Your task to perform on an android device: Go to accessibility settings Image 0: 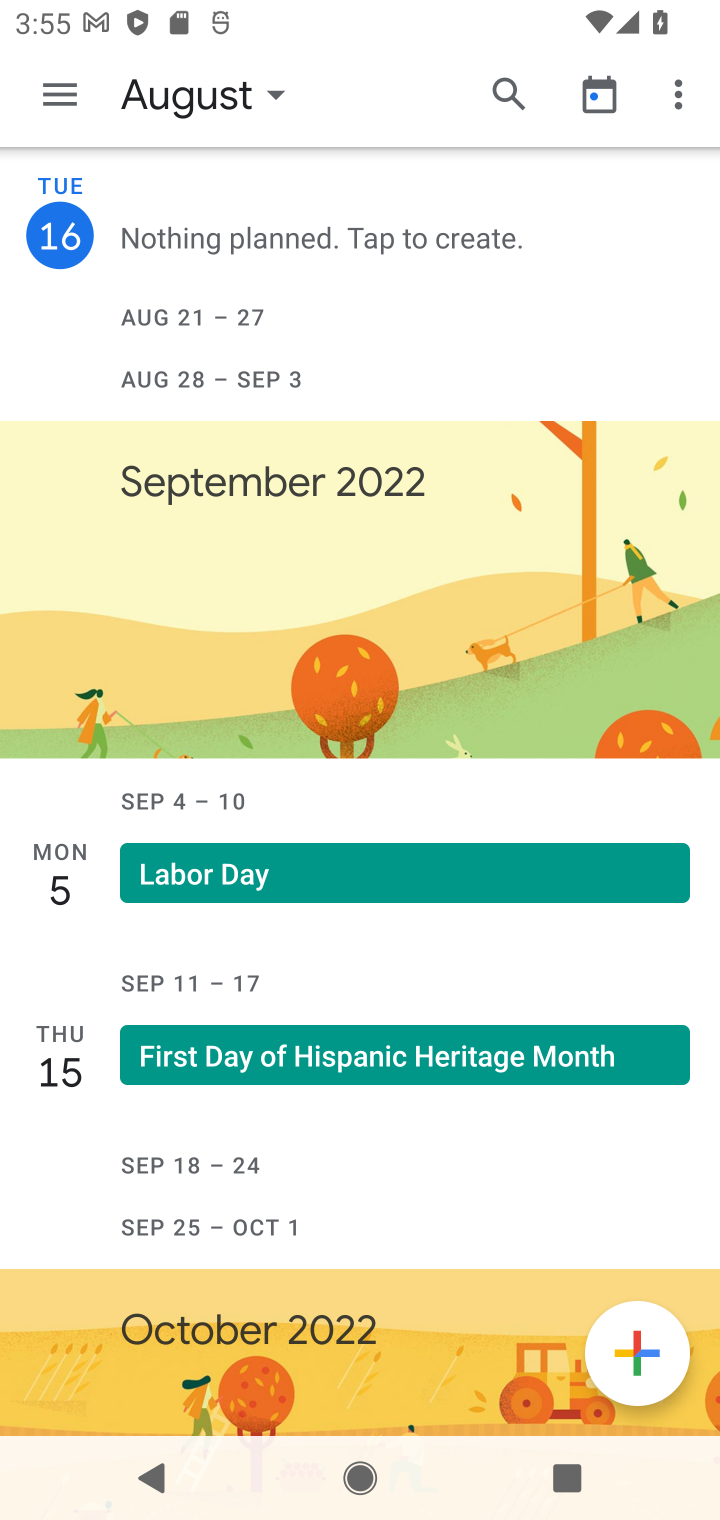
Step 0: press home button
Your task to perform on an android device: Go to accessibility settings Image 1: 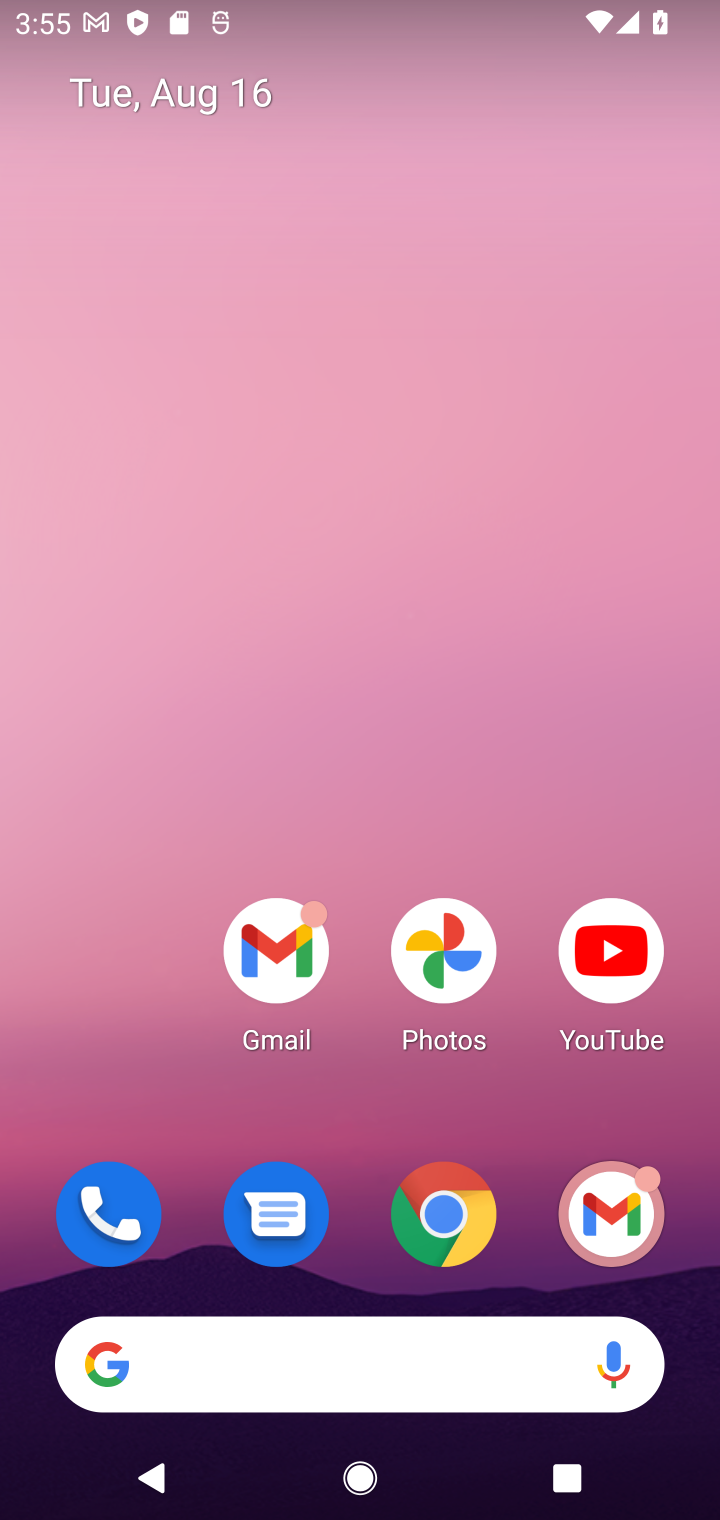
Step 1: drag from (230, 1262) to (95, 627)
Your task to perform on an android device: Go to accessibility settings Image 2: 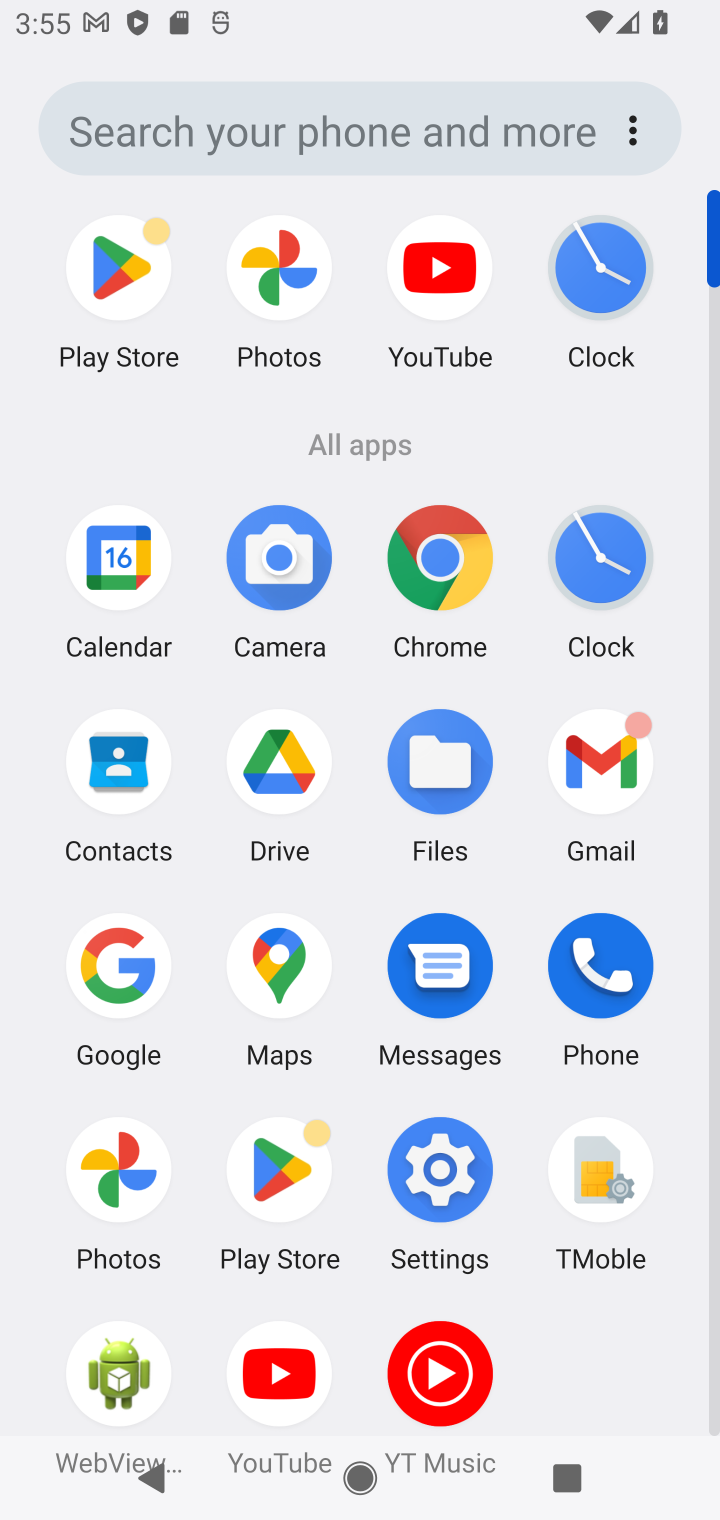
Step 2: click (398, 1161)
Your task to perform on an android device: Go to accessibility settings Image 3: 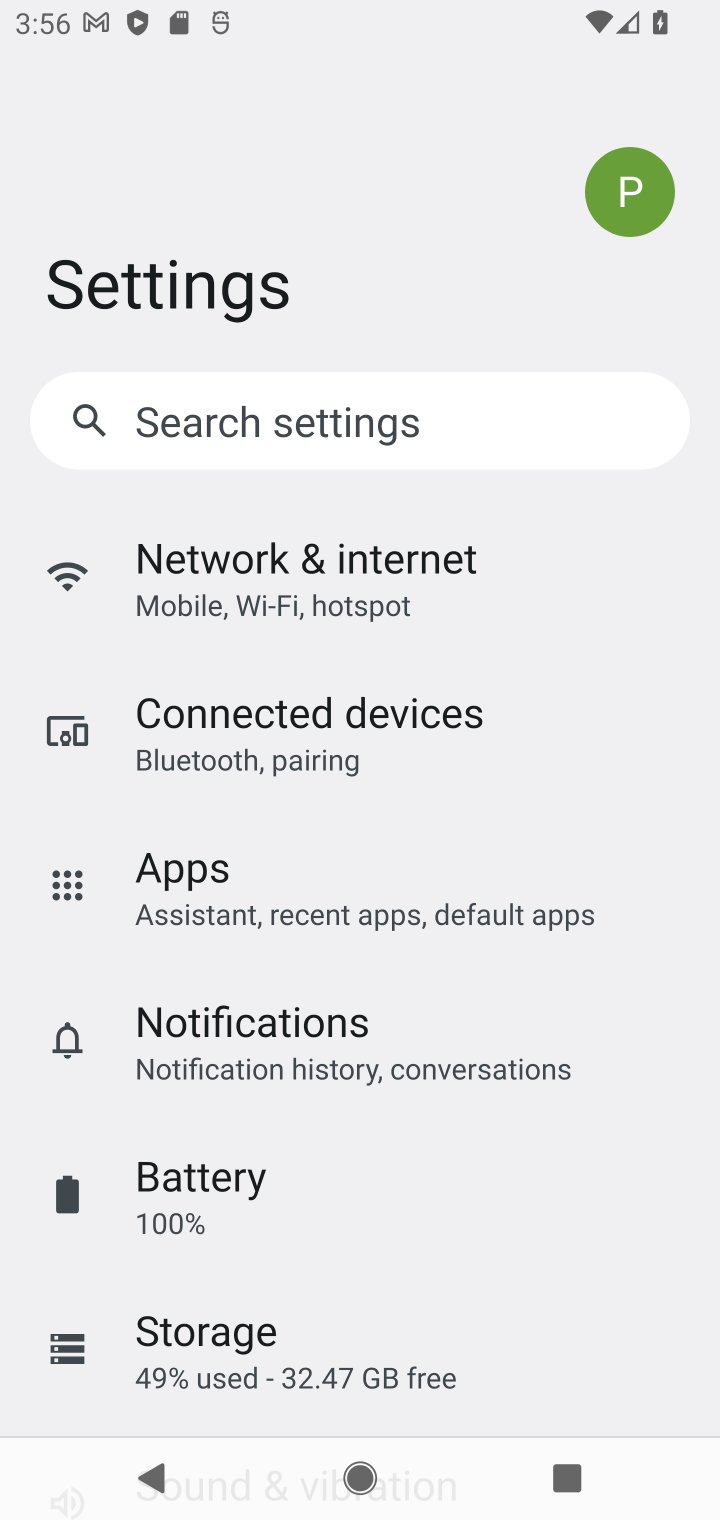
Step 3: drag from (322, 1158) to (44, 204)
Your task to perform on an android device: Go to accessibility settings Image 4: 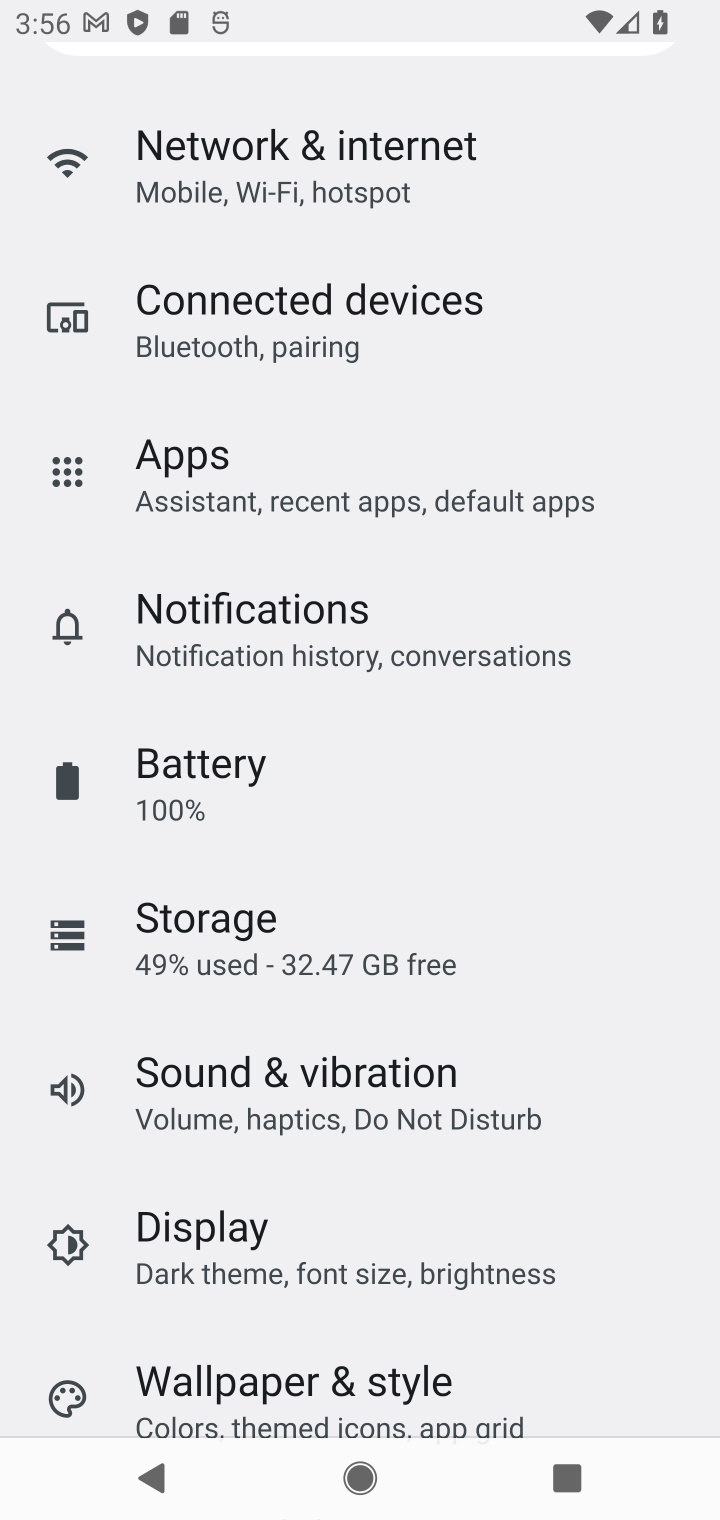
Step 4: drag from (327, 1259) to (35, 165)
Your task to perform on an android device: Go to accessibility settings Image 5: 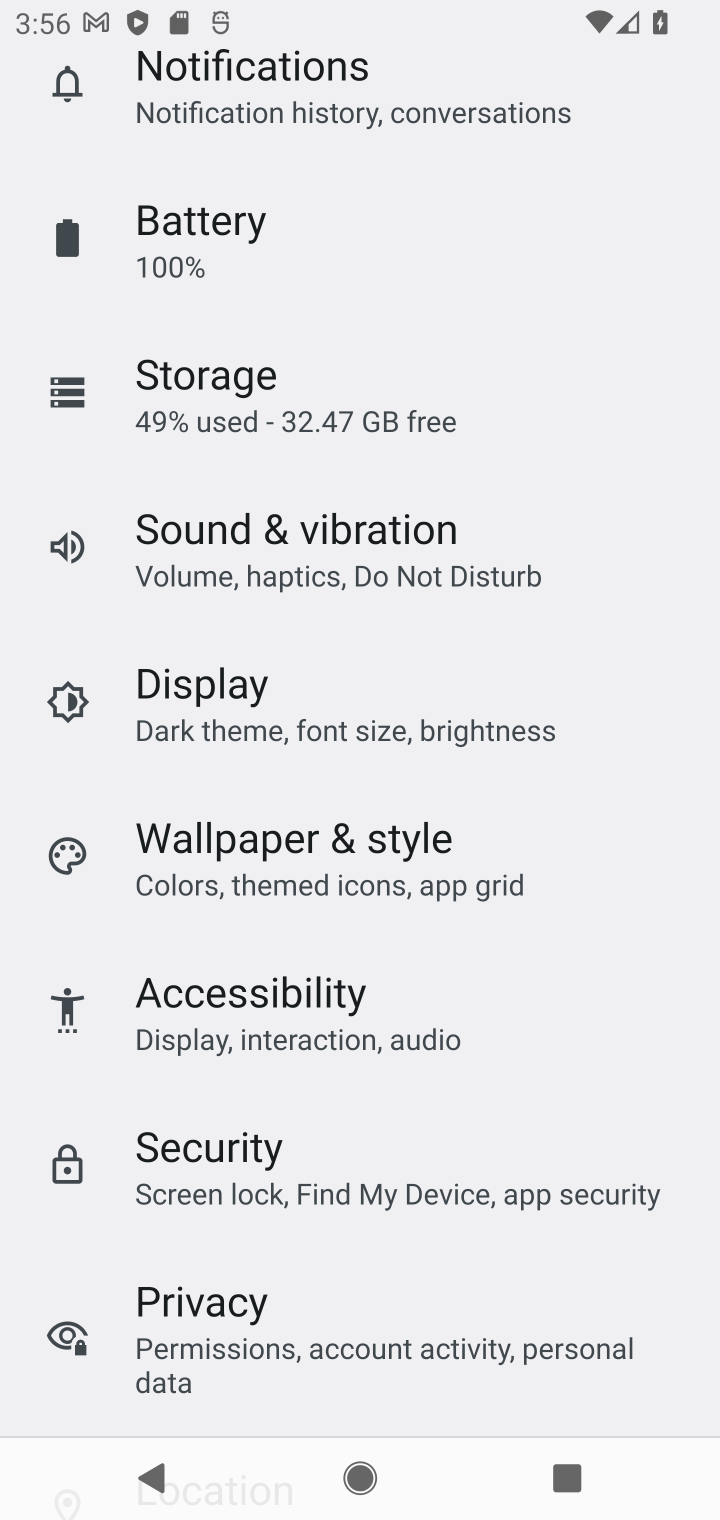
Step 5: click (268, 992)
Your task to perform on an android device: Go to accessibility settings Image 6: 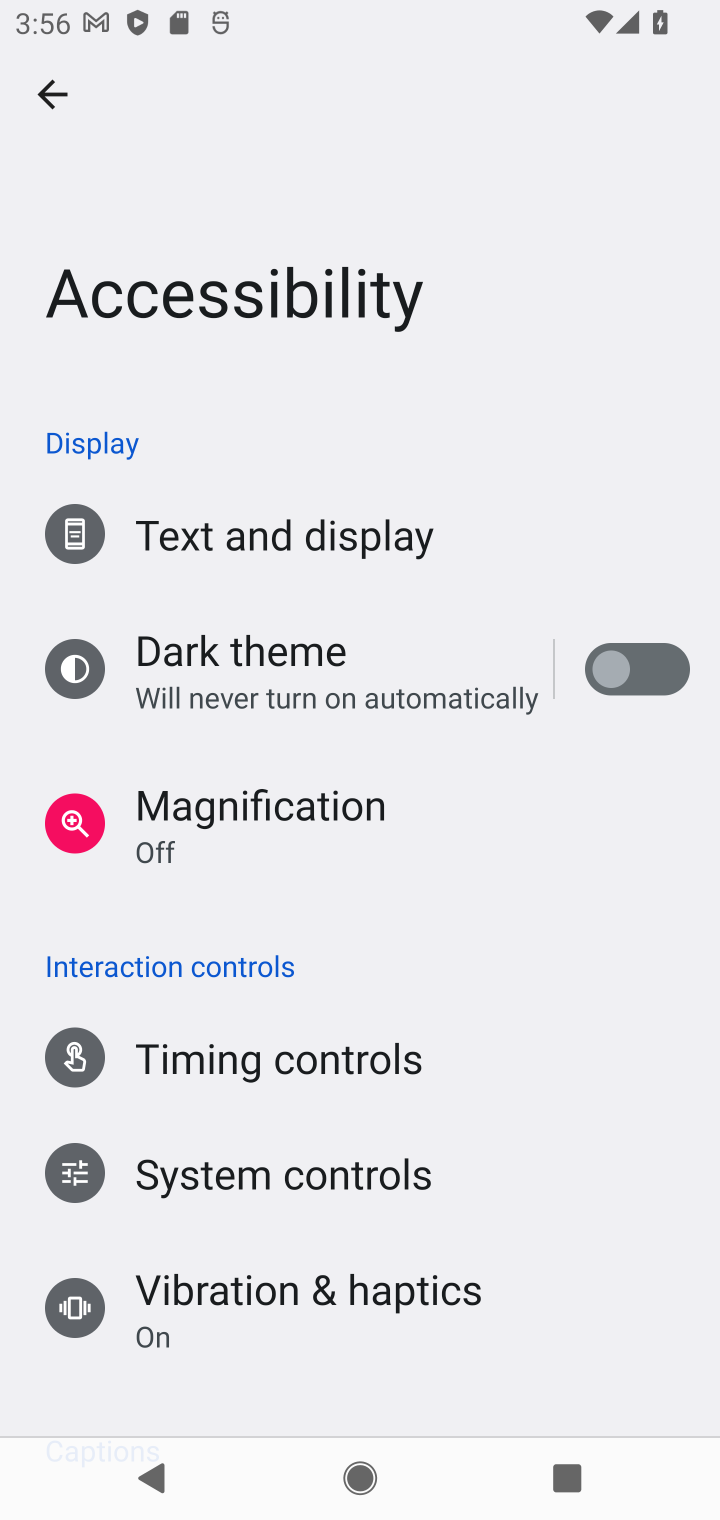
Step 6: task complete